Your task to perform on an android device: Open Google Chrome and click the shortcut for Amazon.com Image 0: 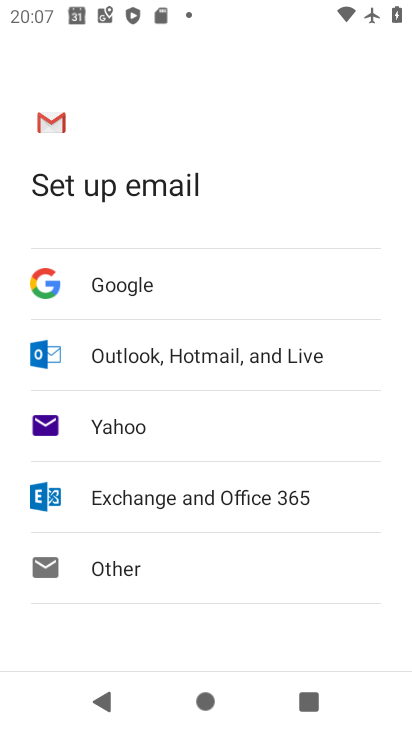
Step 0: press home button
Your task to perform on an android device: Open Google Chrome and click the shortcut for Amazon.com Image 1: 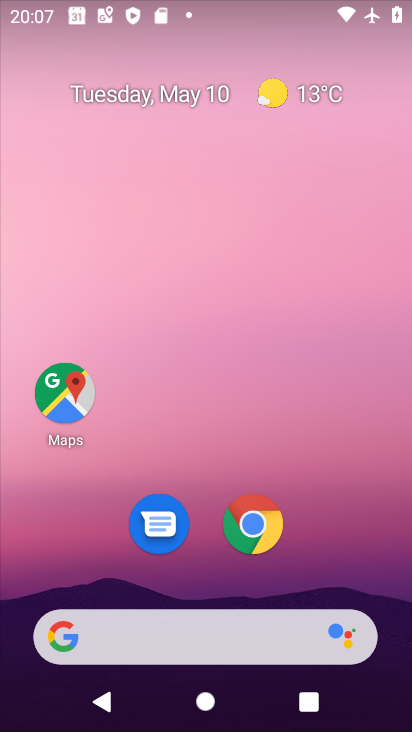
Step 1: click (255, 517)
Your task to perform on an android device: Open Google Chrome and click the shortcut for Amazon.com Image 2: 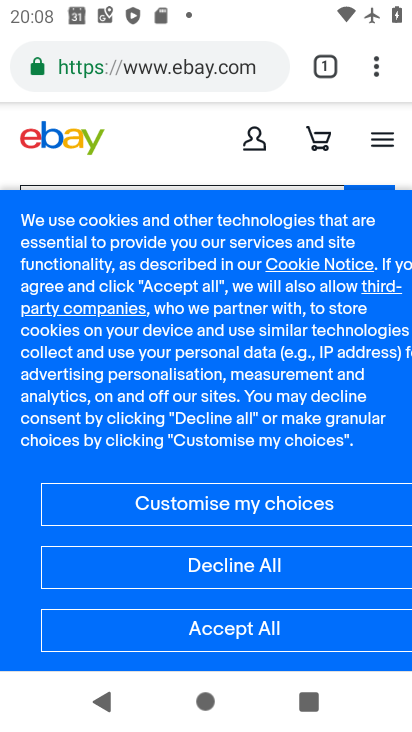
Step 2: click (377, 72)
Your task to perform on an android device: Open Google Chrome and click the shortcut for Amazon.com Image 3: 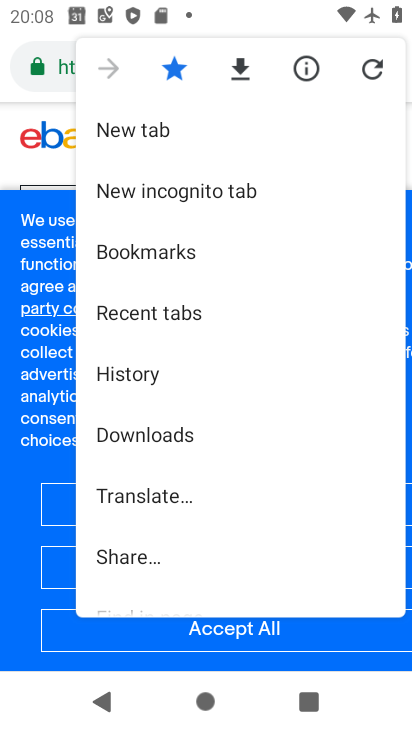
Step 3: click (284, 125)
Your task to perform on an android device: Open Google Chrome and click the shortcut for Amazon.com Image 4: 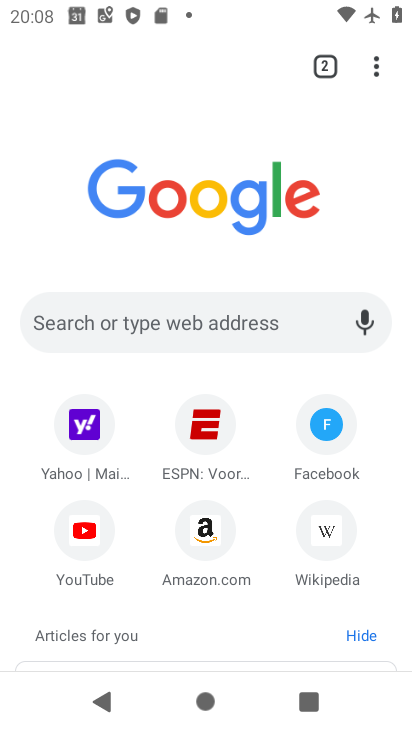
Step 4: click (203, 532)
Your task to perform on an android device: Open Google Chrome and click the shortcut for Amazon.com Image 5: 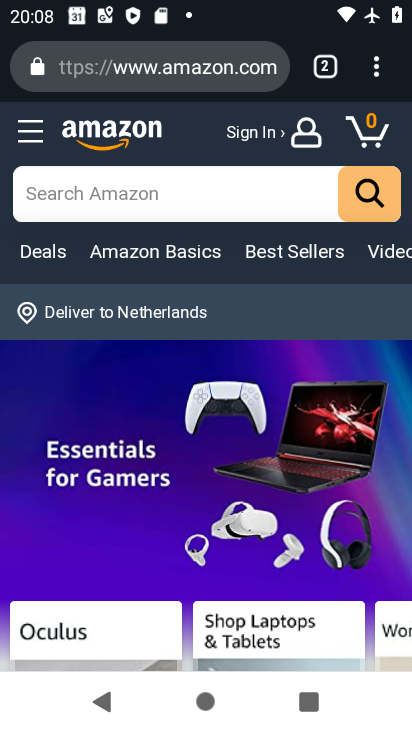
Step 5: task complete